Your task to perform on an android device: uninstall "Fetch Rewards" Image 0: 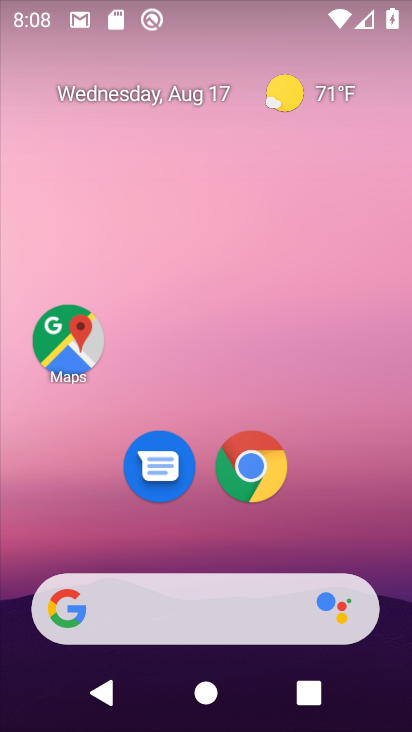
Step 0: drag from (186, 549) to (253, 0)
Your task to perform on an android device: uninstall "Fetch Rewards" Image 1: 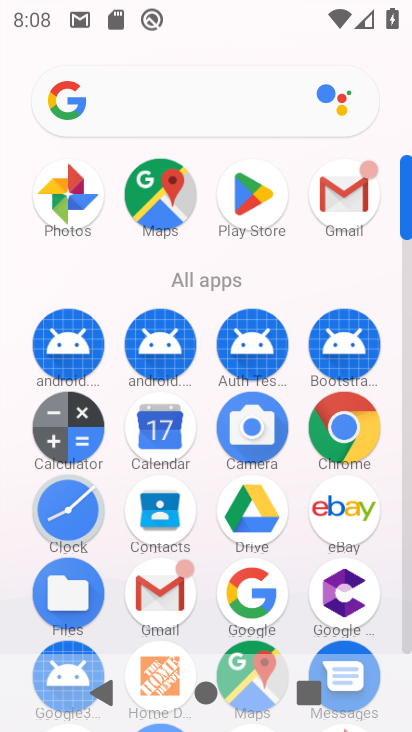
Step 1: click (255, 218)
Your task to perform on an android device: uninstall "Fetch Rewards" Image 2: 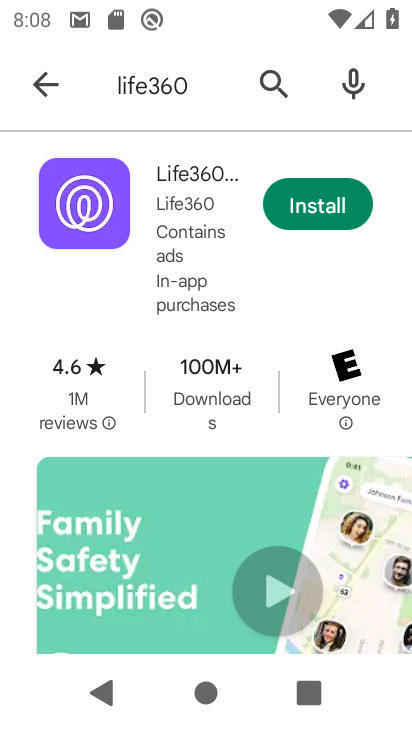
Step 2: click (173, 38)
Your task to perform on an android device: uninstall "Fetch Rewards" Image 3: 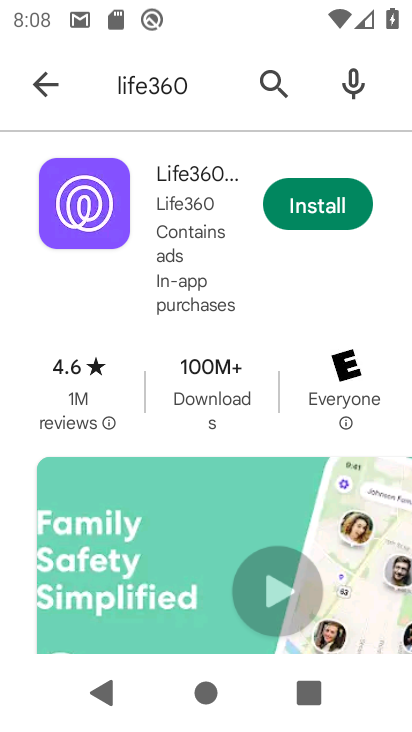
Step 3: click (210, 102)
Your task to perform on an android device: uninstall "Fetch Rewards" Image 4: 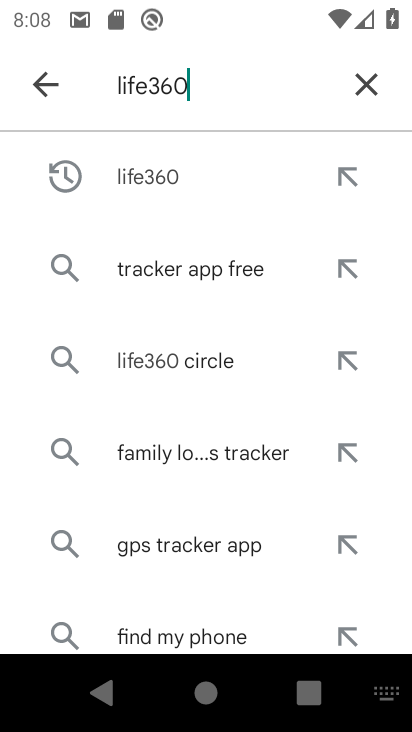
Step 4: click (363, 73)
Your task to perform on an android device: uninstall "Fetch Rewards" Image 5: 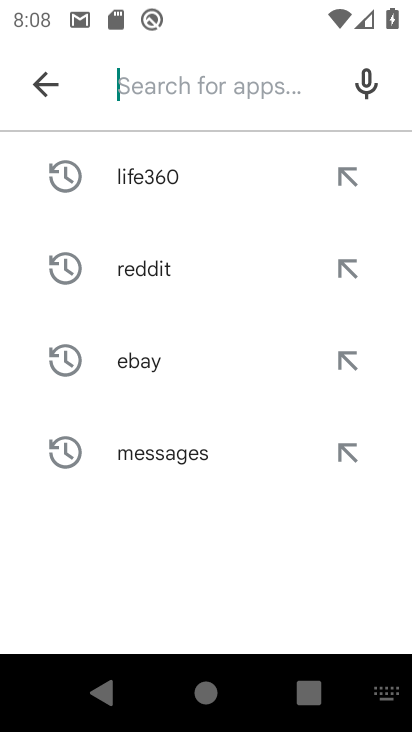
Step 5: type "fetch rewards"
Your task to perform on an android device: uninstall "Fetch Rewards" Image 6: 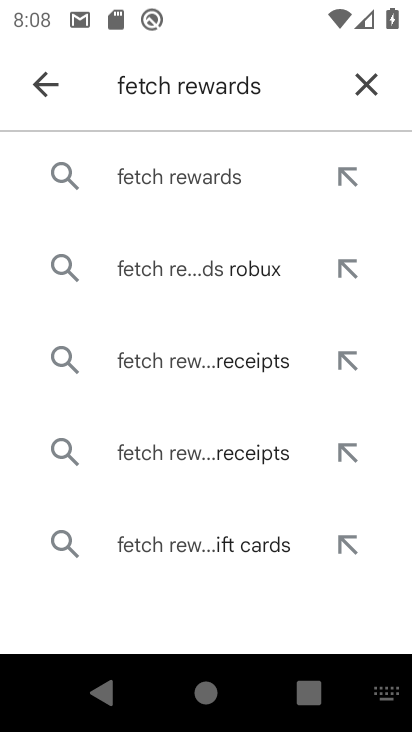
Step 6: click (172, 181)
Your task to perform on an android device: uninstall "Fetch Rewards" Image 7: 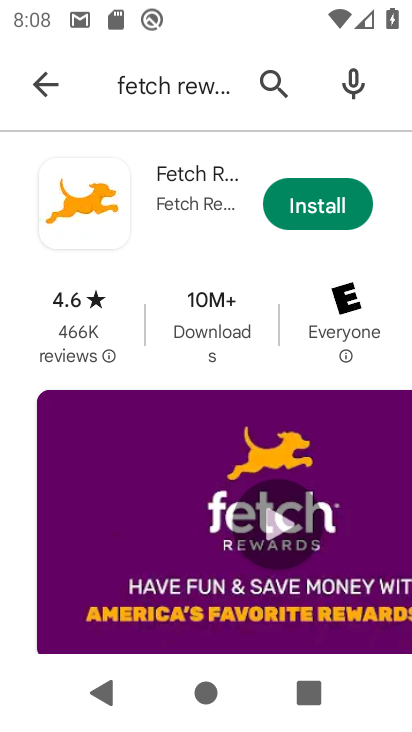
Step 7: task complete